Your task to perform on an android device: Search for vegetarian restaurants on Maps Image 0: 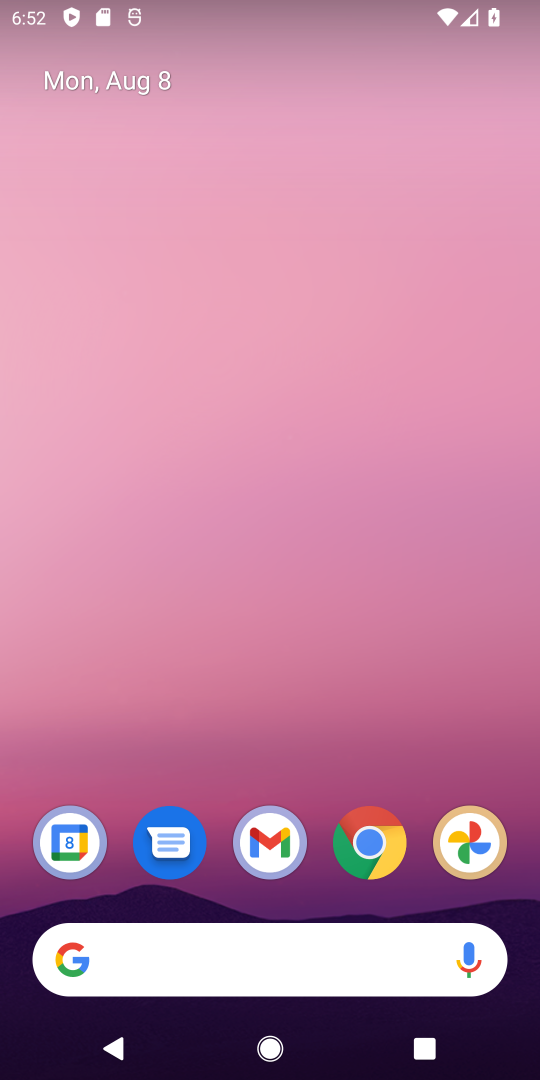
Step 0: drag from (256, 929) to (249, 74)
Your task to perform on an android device: Search for vegetarian restaurants on Maps Image 1: 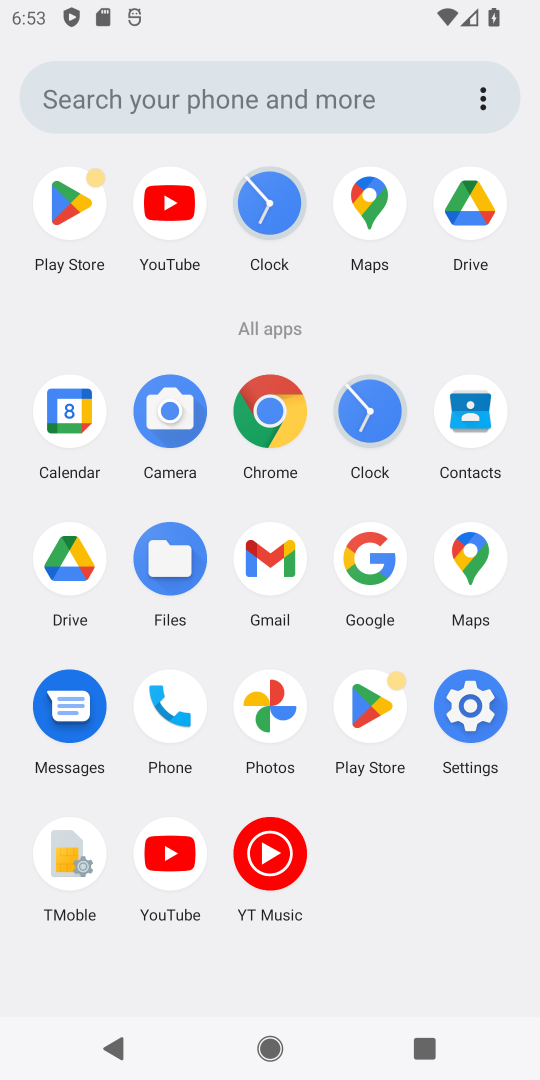
Step 1: click (472, 551)
Your task to perform on an android device: Search for vegetarian restaurants on Maps Image 2: 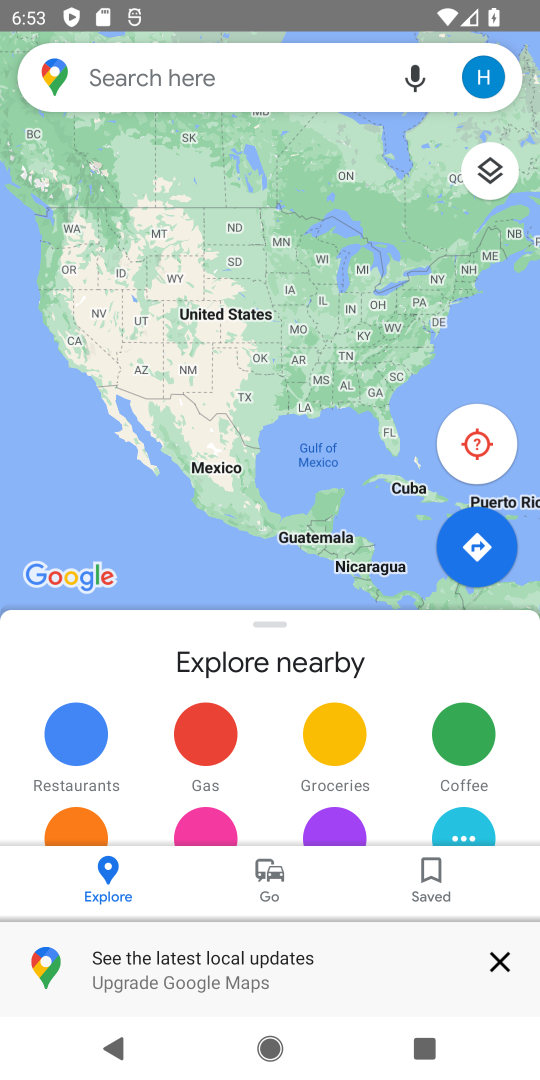
Step 2: click (180, 98)
Your task to perform on an android device: Search for vegetarian restaurants on Maps Image 3: 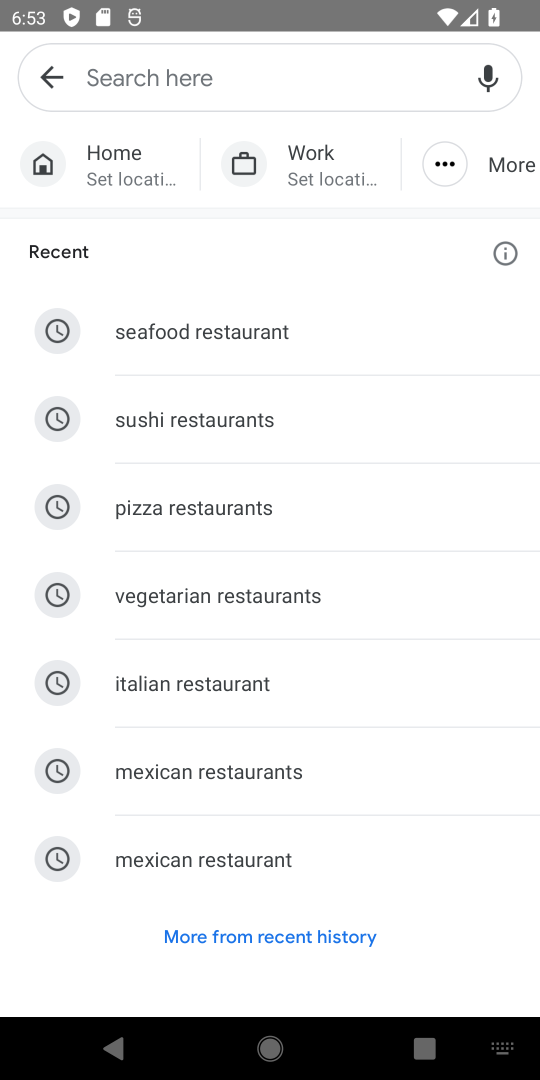
Step 3: click (252, 615)
Your task to perform on an android device: Search for vegetarian restaurants on Maps Image 4: 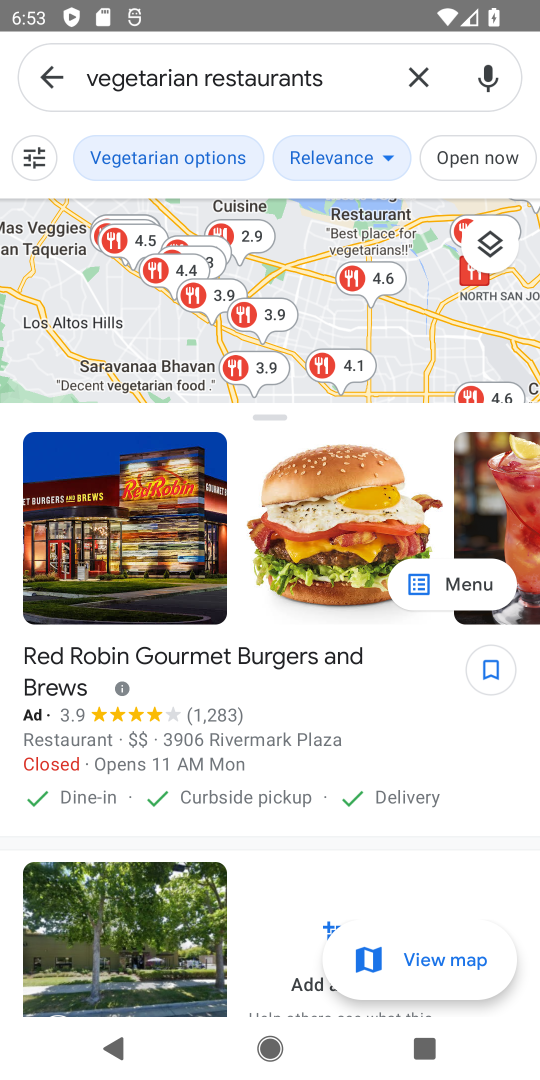
Step 4: task complete